Your task to perform on an android device: turn pop-ups on in chrome Image 0: 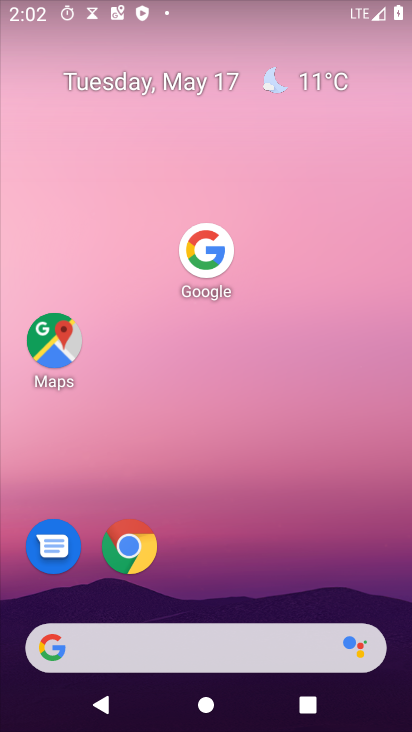
Step 0: press home button
Your task to perform on an android device: turn pop-ups on in chrome Image 1: 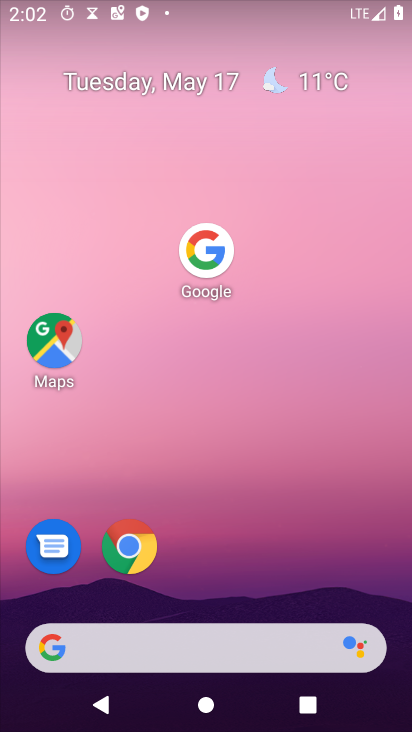
Step 1: click (132, 550)
Your task to perform on an android device: turn pop-ups on in chrome Image 2: 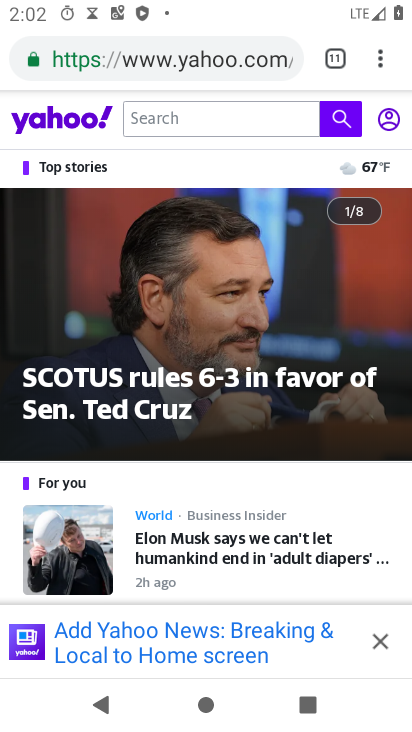
Step 2: drag from (377, 58) to (258, 581)
Your task to perform on an android device: turn pop-ups on in chrome Image 3: 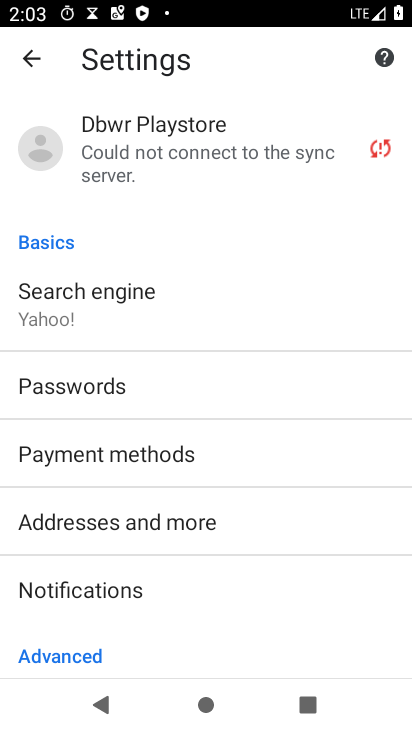
Step 3: drag from (191, 612) to (243, 254)
Your task to perform on an android device: turn pop-ups on in chrome Image 4: 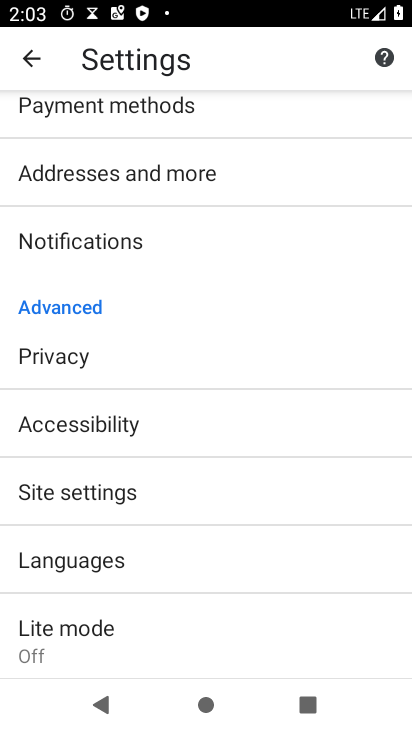
Step 4: click (104, 495)
Your task to perform on an android device: turn pop-ups on in chrome Image 5: 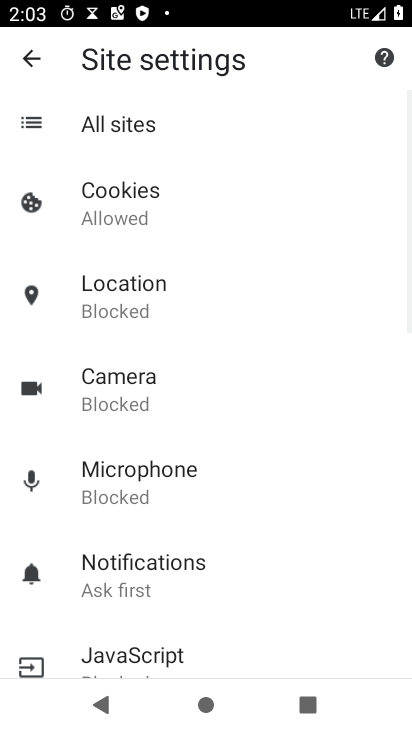
Step 5: drag from (212, 607) to (288, 226)
Your task to perform on an android device: turn pop-ups on in chrome Image 6: 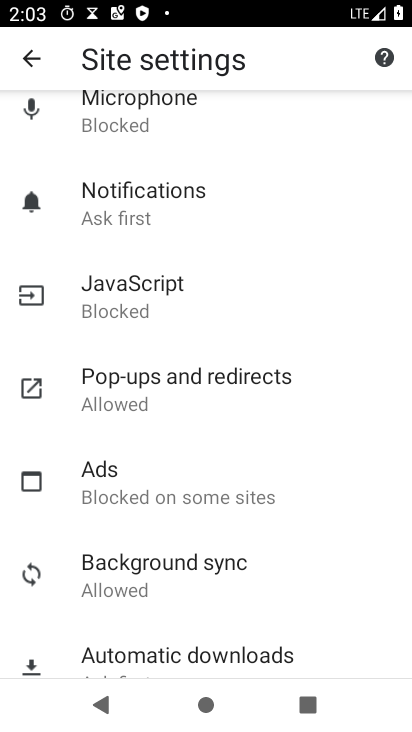
Step 6: click (180, 389)
Your task to perform on an android device: turn pop-ups on in chrome Image 7: 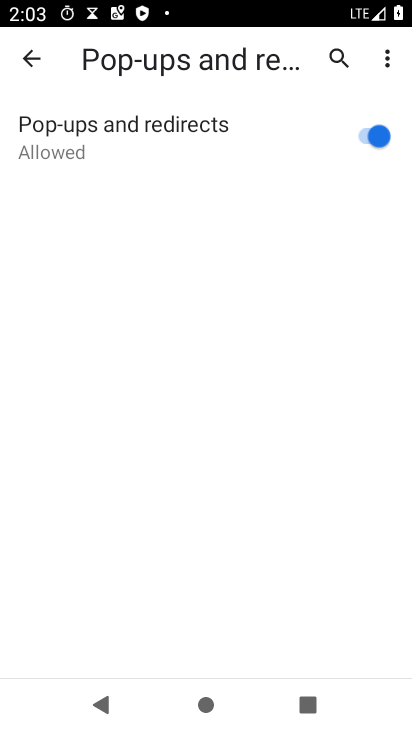
Step 7: task complete